Your task to perform on an android device: Open calendar and show me the second week of next month Image 0: 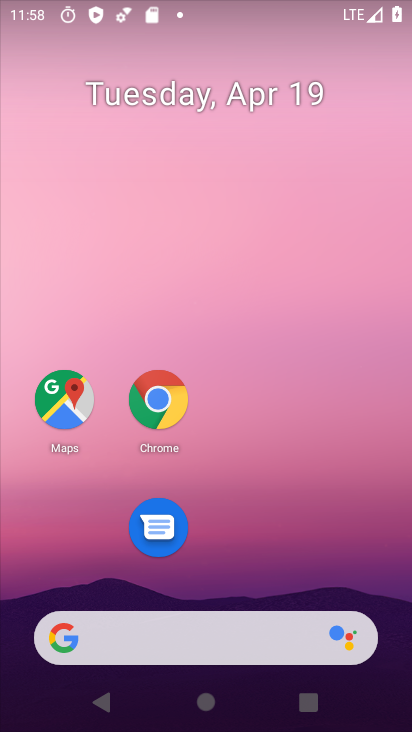
Step 0: drag from (255, 643) to (263, 143)
Your task to perform on an android device: Open calendar and show me the second week of next month Image 1: 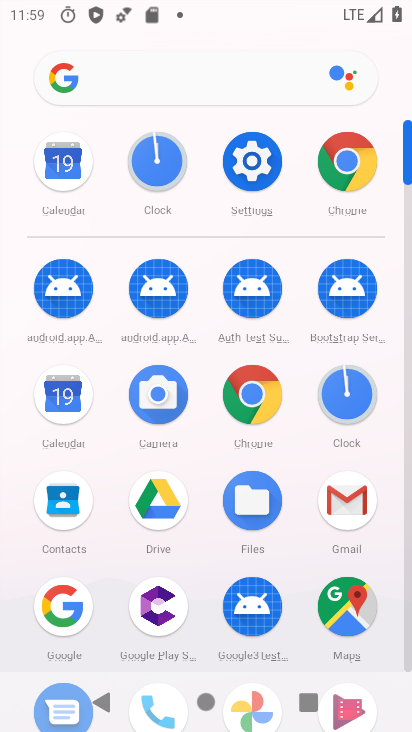
Step 1: click (65, 392)
Your task to perform on an android device: Open calendar and show me the second week of next month Image 2: 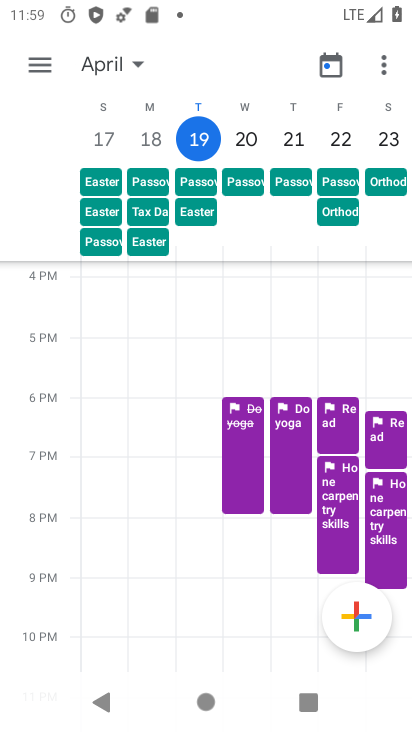
Step 2: click (45, 67)
Your task to perform on an android device: Open calendar and show me the second week of next month Image 3: 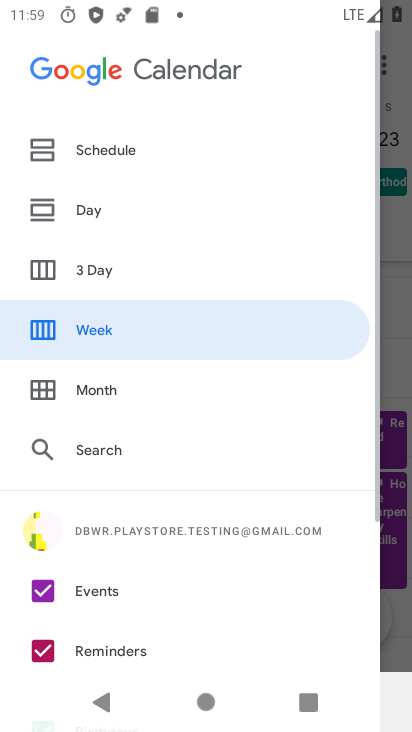
Step 3: click (110, 386)
Your task to perform on an android device: Open calendar and show me the second week of next month Image 4: 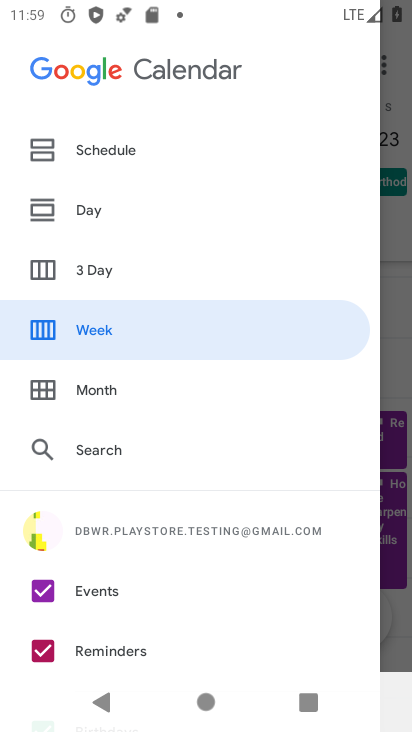
Step 4: click (81, 390)
Your task to perform on an android device: Open calendar and show me the second week of next month Image 5: 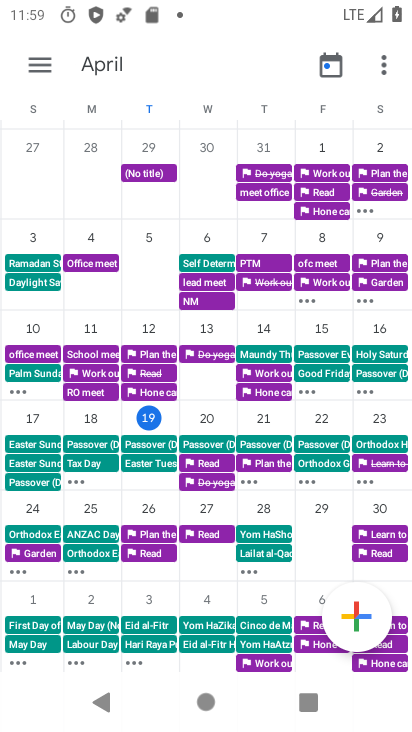
Step 5: drag from (387, 503) to (0, 576)
Your task to perform on an android device: Open calendar and show me the second week of next month Image 6: 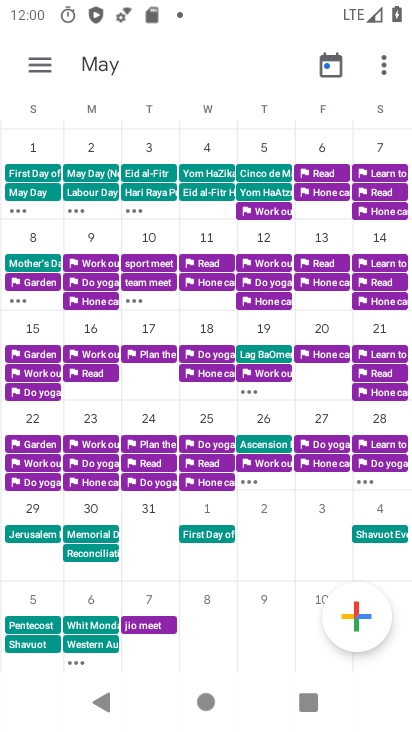
Step 6: click (106, 236)
Your task to perform on an android device: Open calendar and show me the second week of next month Image 7: 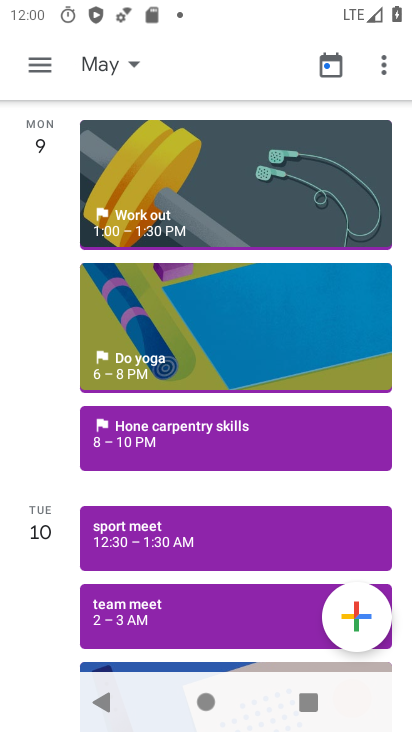
Step 7: task complete